Your task to perform on an android device: turn on translation in the chrome app Image 0: 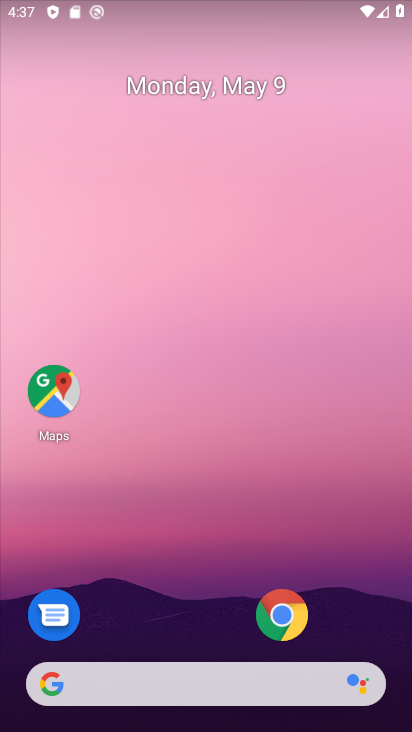
Step 0: click (288, 627)
Your task to perform on an android device: turn on translation in the chrome app Image 1: 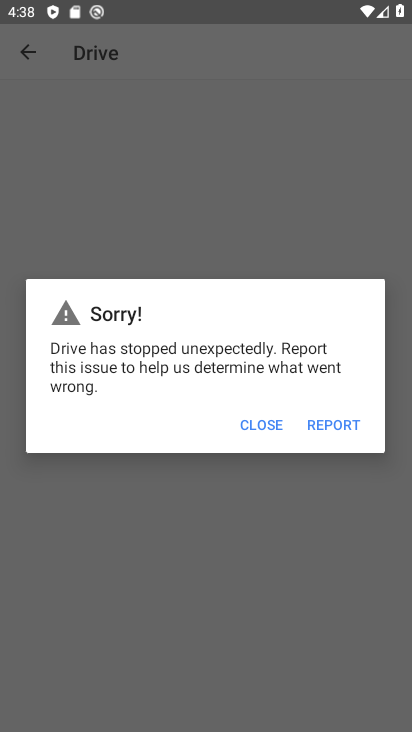
Step 1: click (261, 421)
Your task to perform on an android device: turn on translation in the chrome app Image 2: 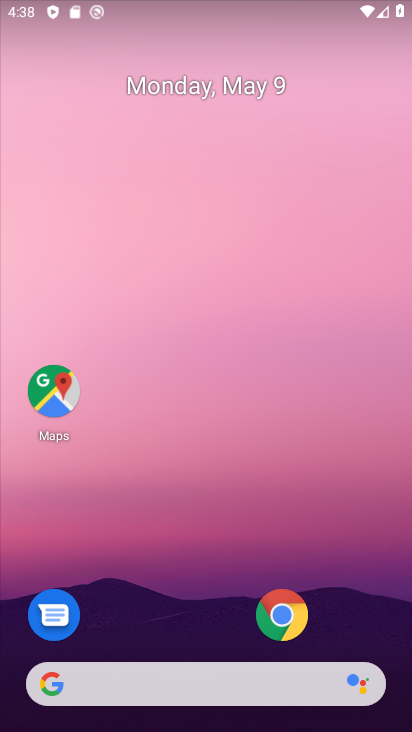
Step 2: click (286, 608)
Your task to perform on an android device: turn on translation in the chrome app Image 3: 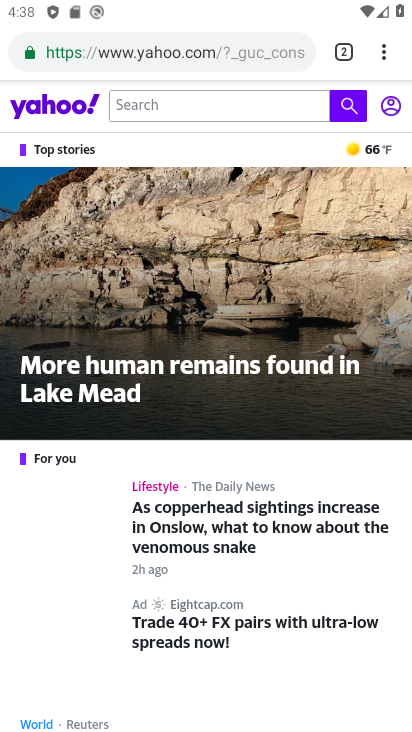
Step 3: click (390, 49)
Your task to perform on an android device: turn on translation in the chrome app Image 4: 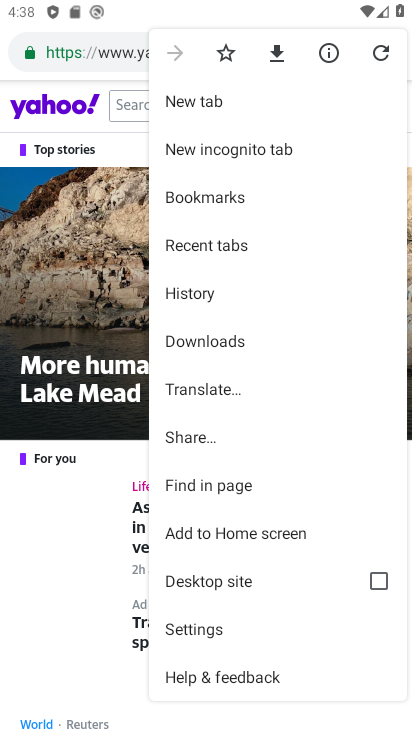
Step 4: click (203, 617)
Your task to perform on an android device: turn on translation in the chrome app Image 5: 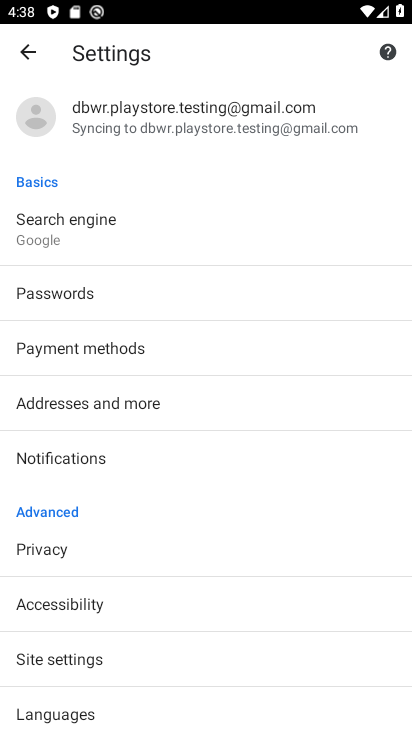
Step 5: click (87, 714)
Your task to perform on an android device: turn on translation in the chrome app Image 6: 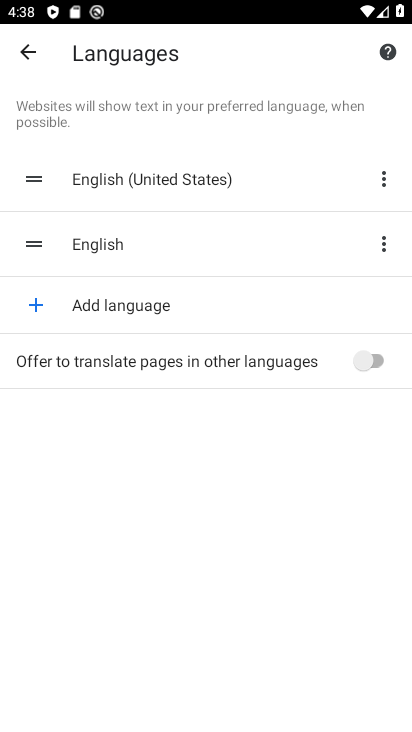
Step 6: click (373, 359)
Your task to perform on an android device: turn on translation in the chrome app Image 7: 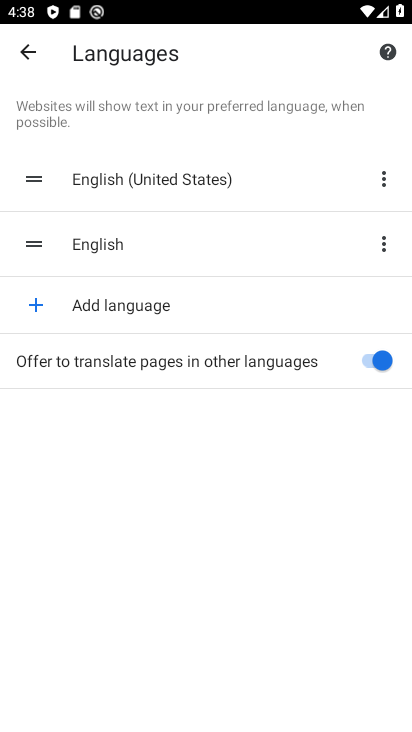
Step 7: task complete